Your task to perform on an android device: allow notifications from all sites in the chrome app Image 0: 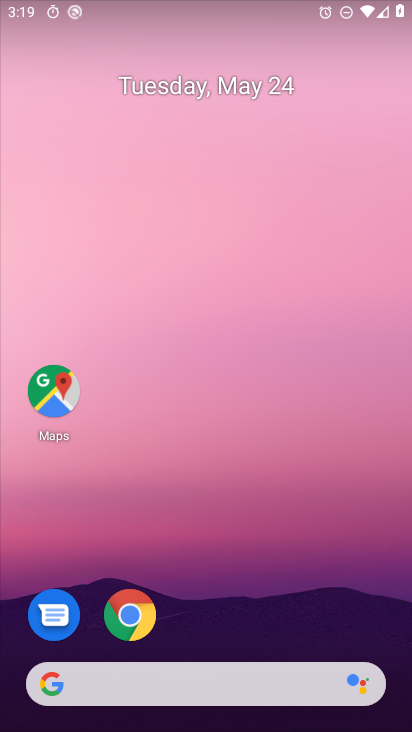
Step 0: click (132, 613)
Your task to perform on an android device: allow notifications from all sites in the chrome app Image 1: 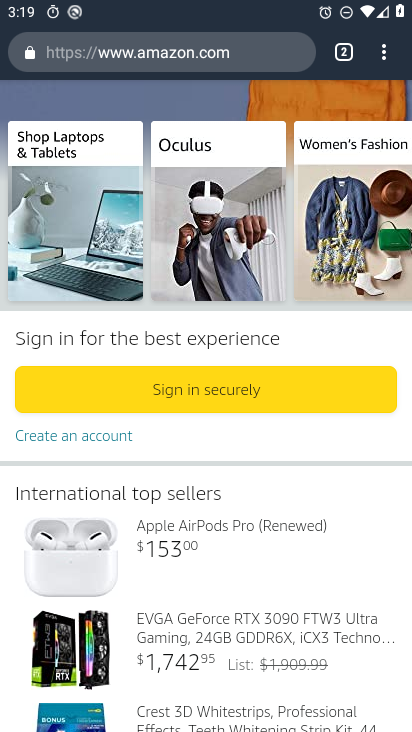
Step 1: click (381, 50)
Your task to perform on an android device: allow notifications from all sites in the chrome app Image 2: 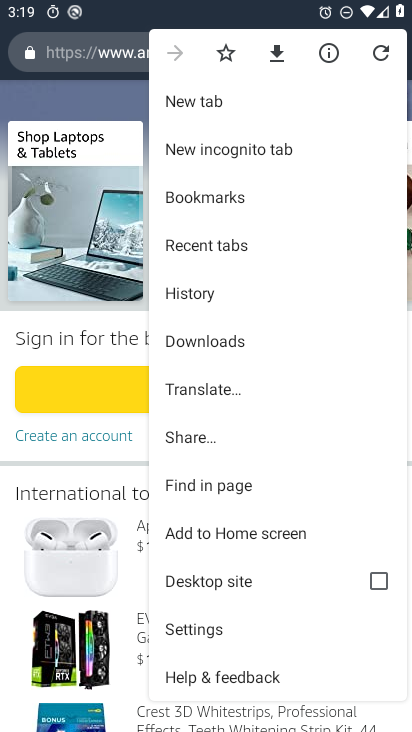
Step 2: click (204, 629)
Your task to perform on an android device: allow notifications from all sites in the chrome app Image 3: 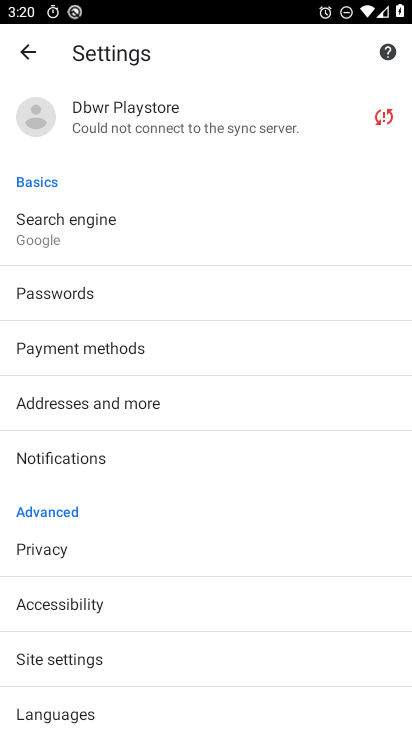
Step 3: click (55, 659)
Your task to perform on an android device: allow notifications from all sites in the chrome app Image 4: 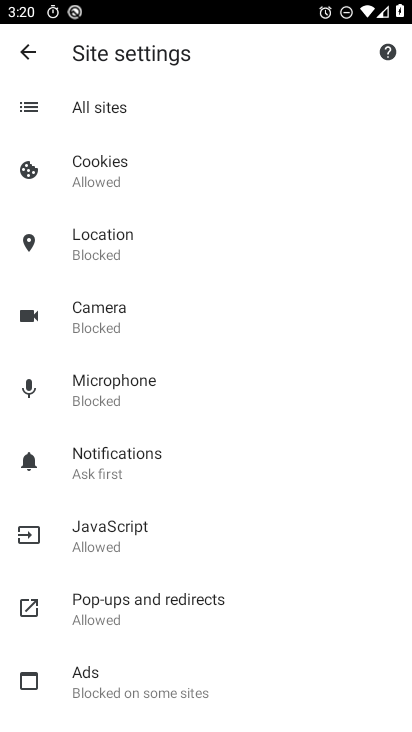
Step 4: click (122, 483)
Your task to perform on an android device: allow notifications from all sites in the chrome app Image 5: 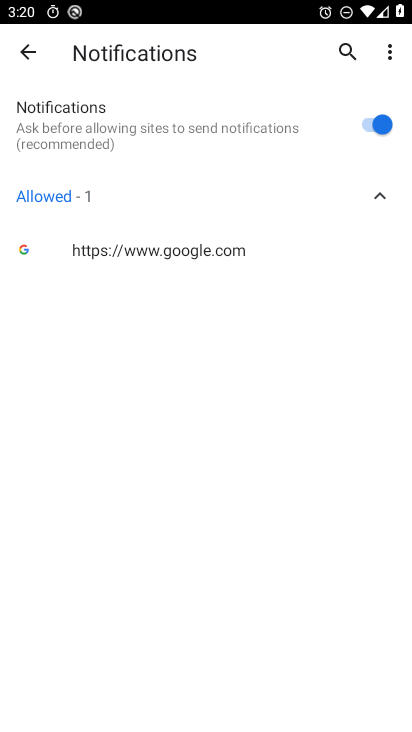
Step 5: task complete